Your task to perform on an android device: find photos in the google photos app Image 0: 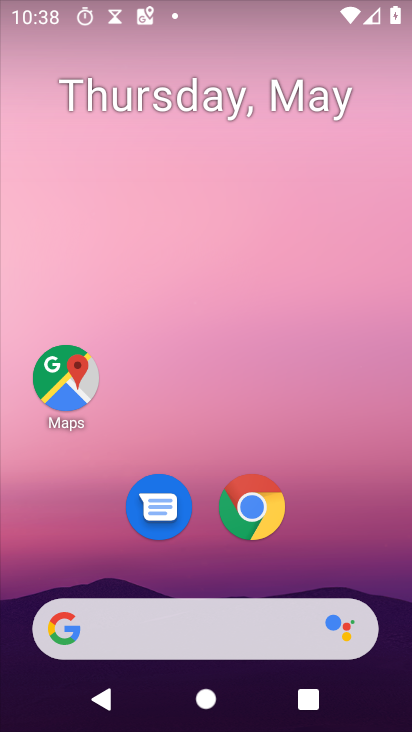
Step 0: press home button
Your task to perform on an android device: find photos in the google photos app Image 1: 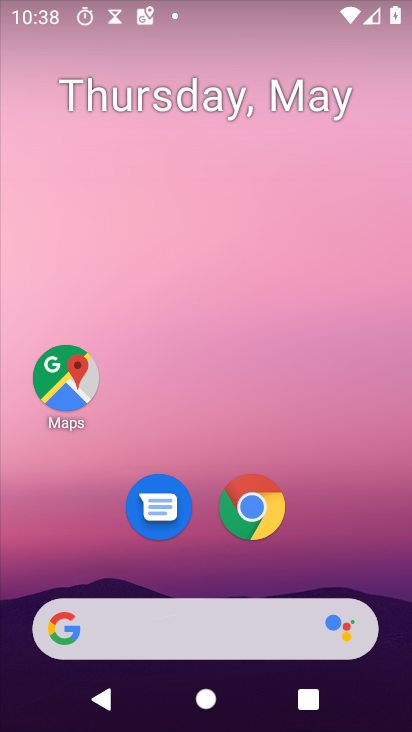
Step 1: drag from (161, 719) to (162, 106)
Your task to perform on an android device: find photos in the google photos app Image 2: 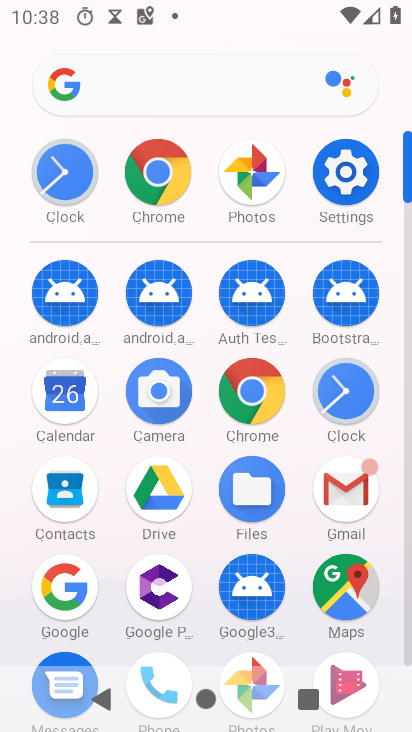
Step 2: drag from (205, 595) to (190, 283)
Your task to perform on an android device: find photos in the google photos app Image 3: 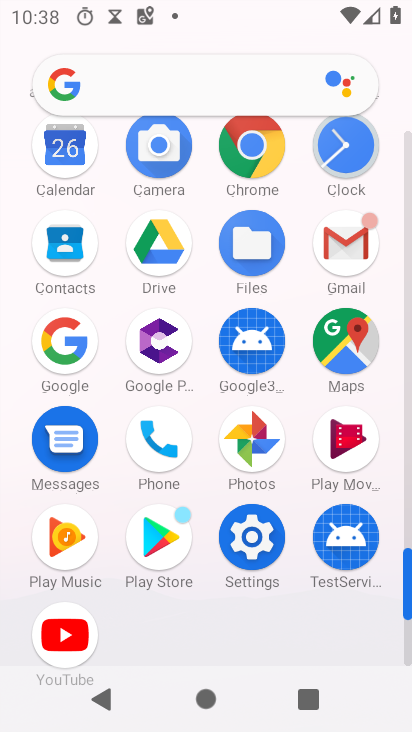
Step 3: click (251, 449)
Your task to perform on an android device: find photos in the google photos app Image 4: 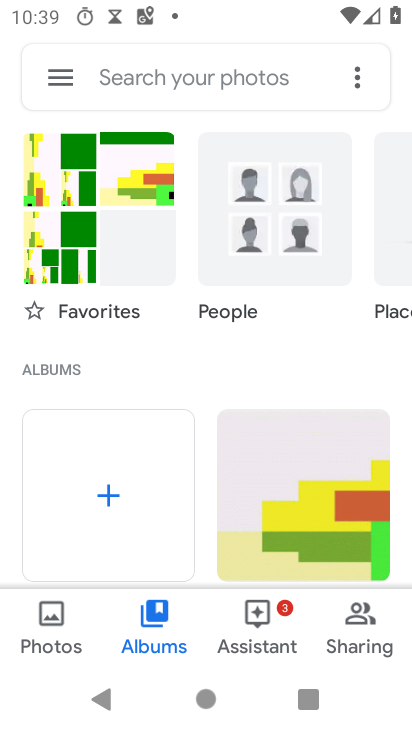
Step 4: click (278, 492)
Your task to perform on an android device: find photos in the google photos app Image 5: 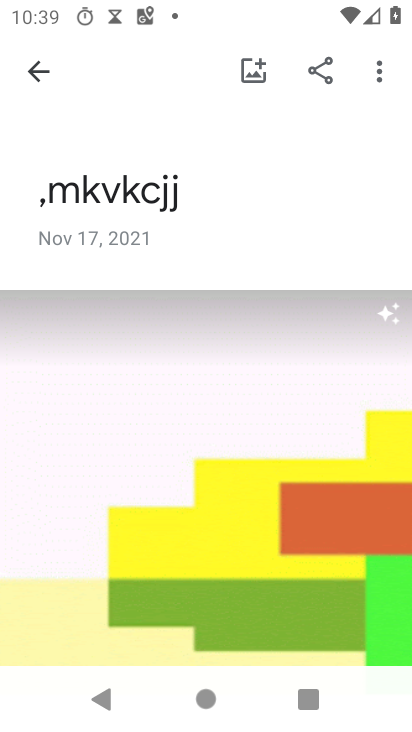
Step 5: task complete